Your task to perform on an android device: Find coffee shops on Maps Image 0: 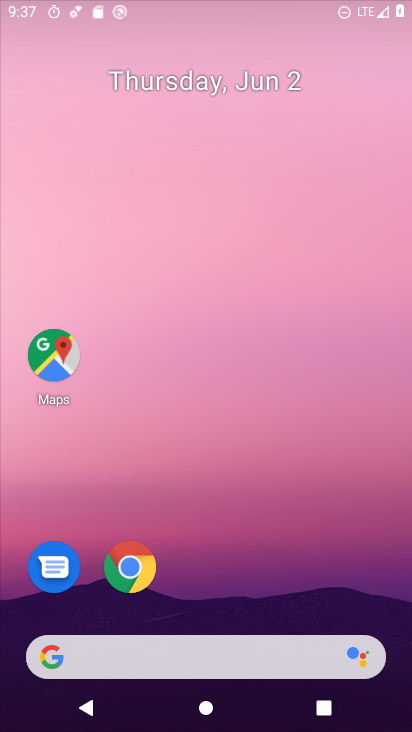
Step 0: press home button
Your task to perform on an android device: Find coffee shops on Maps Image 1: 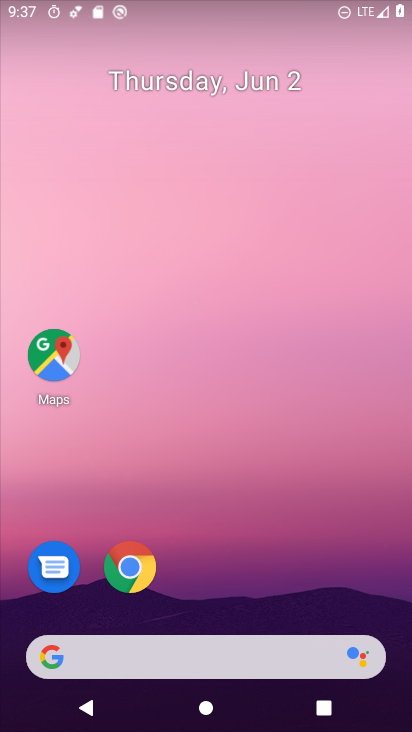
Step 1: drag from (380, 574) to (332, 162)
Your task to perform on an android device: Find coffee shops on Maps Image 2: 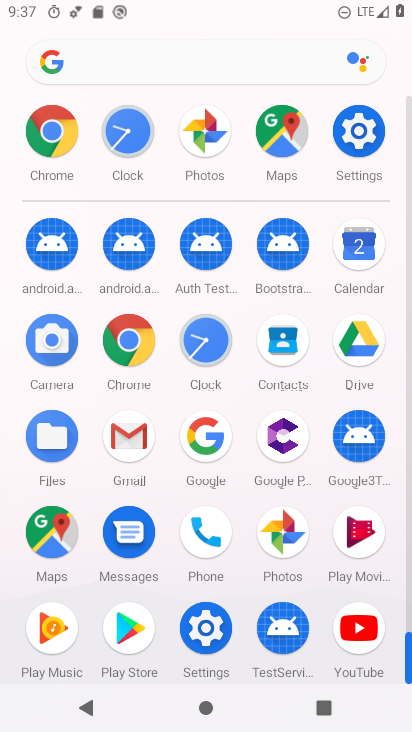
Step 2: click (33, 529)
Your task to perform on an android device: Find coffee shops on Maps Image 3: 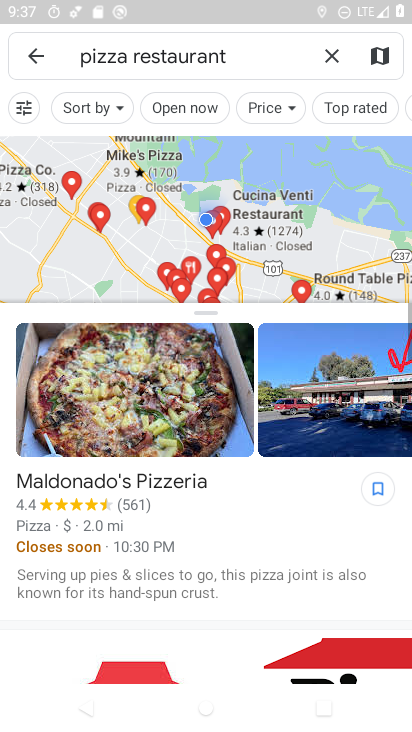
Step 3: click (320, 48)
Your task to perform on an android device: Find coffee shops on Maps Image 4: 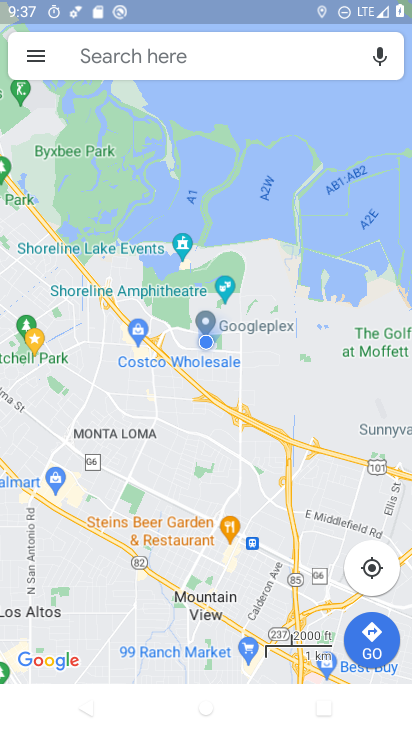
Step 4: click (218, 57)
Your task to perform on an android device: Find coffee shops on Maps Image 5: 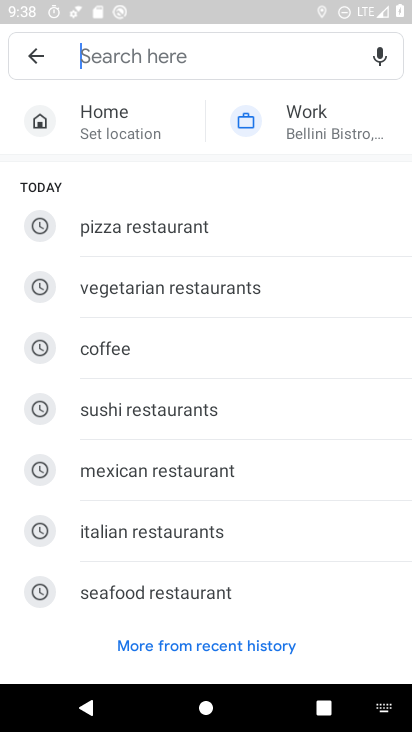
Step 5: type "coffee shops"
Your task to perform on an android device: Find coffee shops on Maps Image 6: 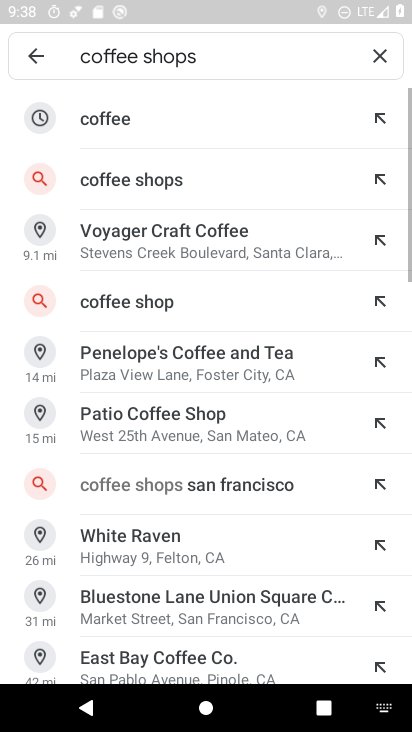
Step 6: click (146, 172)
Your task to perform on an android device: Find coffee shops on Maps Image 7: 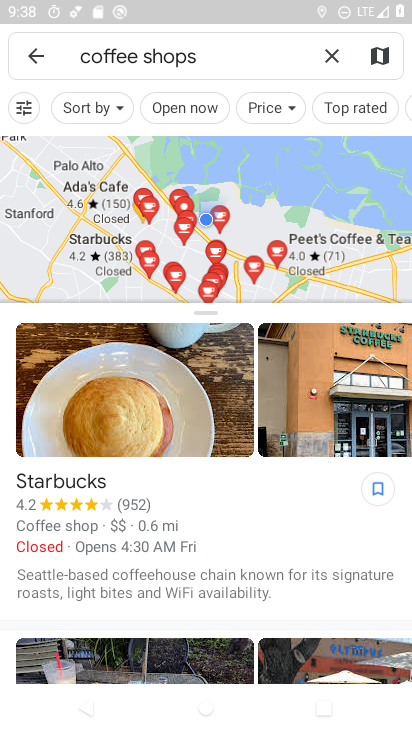
Step 7: task complete